Your task to perform on an android device: change the upload size in google photos Image 0: 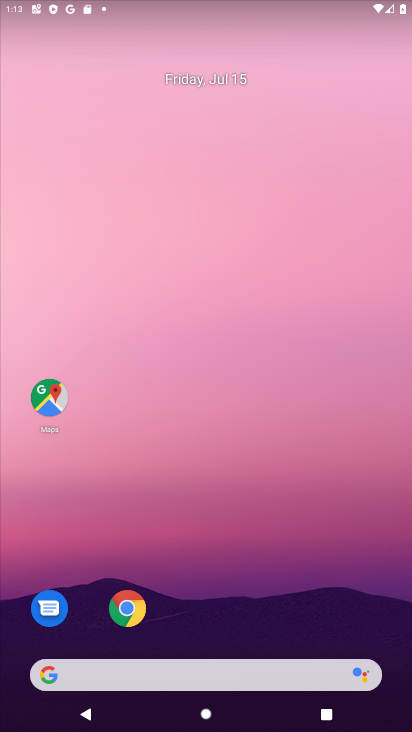
Step 0: drag from (265, 715) to (257, 293)
Your task to perform on an android device: change the upload size in google photos Image 1: 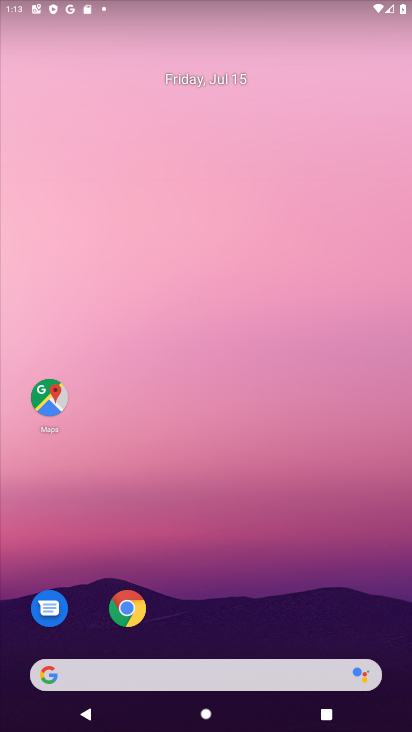
Step 1: drag from (250, 719) to (256, 93)
Your task to perform on an android device: change the upload size in google photos Image 2: 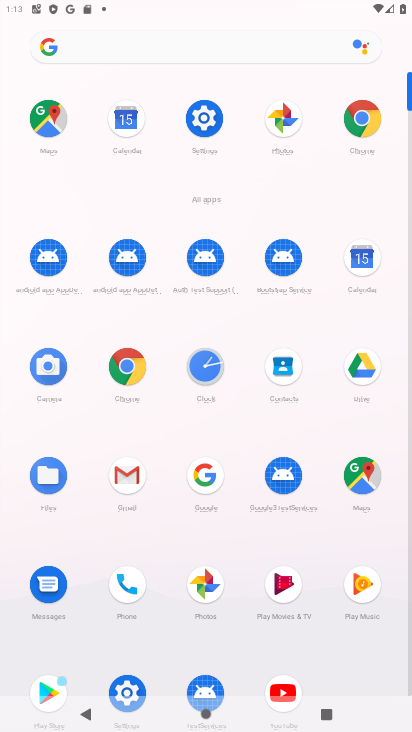
Step 2: click (202, 580)
Your task to perform on an android device: change the upload size in google photos Image 3: 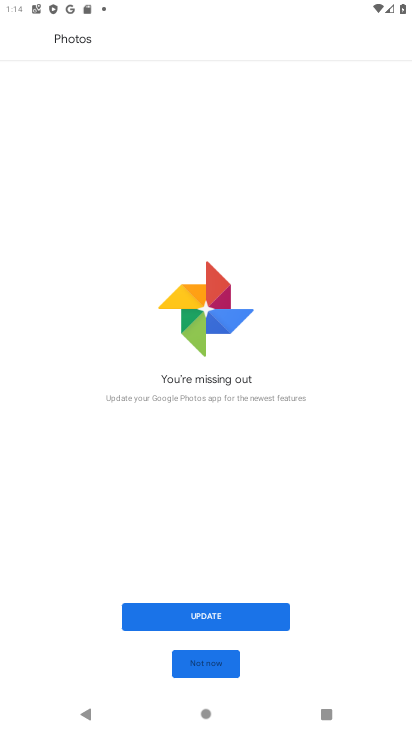
Step 3: click (209, 621)
Your task to perform on an android device: change the upload size in google photos Image 4: 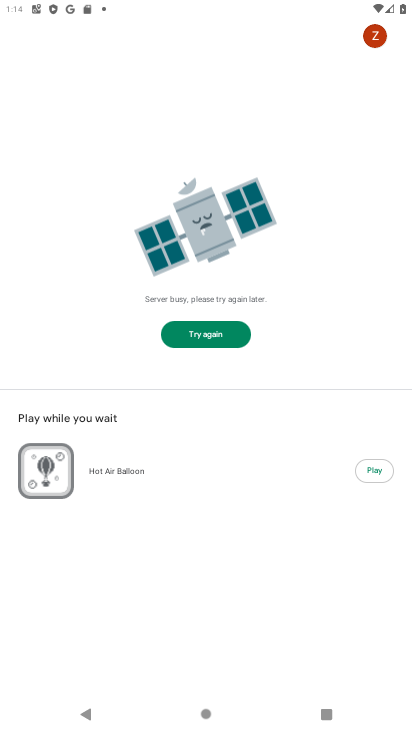
Step 4: click (232, 341)
Your task to perform on an android device: change the upload size in google photos Image 5: 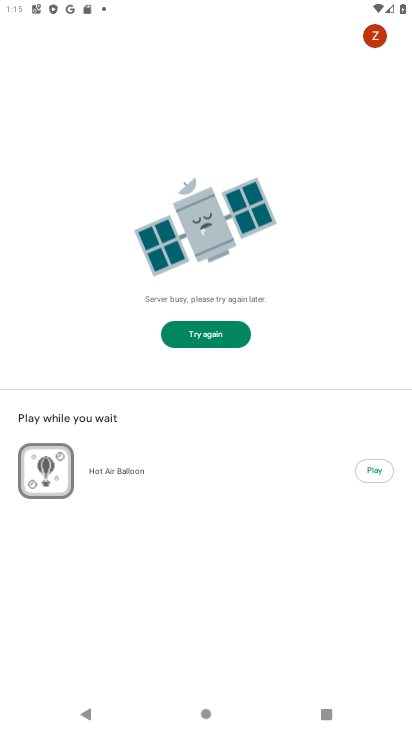
Step 5: task complete